Your task to perform on an android device: Open Android settings Image 0: 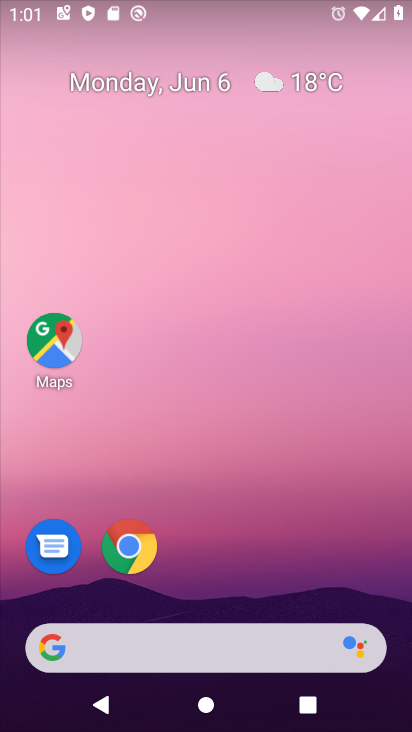
Step 0: drag from (319, 578) to (319, 175)
Your task to perform on an android device: Open Android settings Image 1: 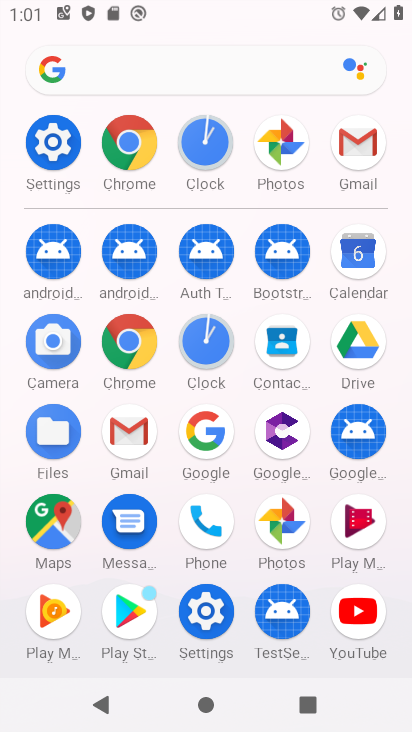
Step 1: click (61, 151)
Your task to perform on an android device: Open Android settings Image 2: 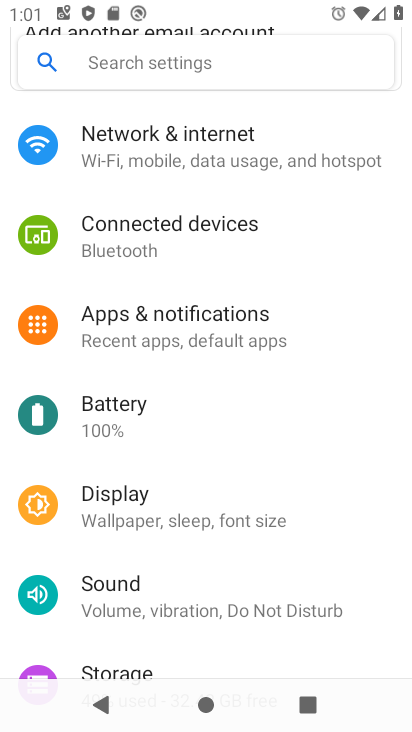
Step 2: task complete